Your task to perform on an android device: turn off improve location accuracy Image 0: 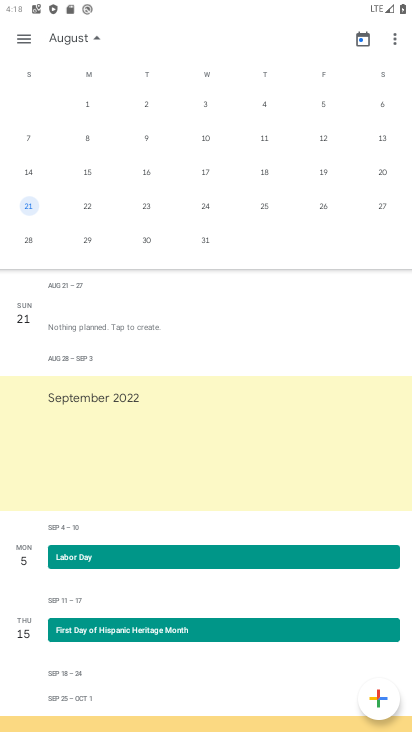
Step 0: press home button
Your task to perform on an android device: turn off improve location accuracy Image 1: 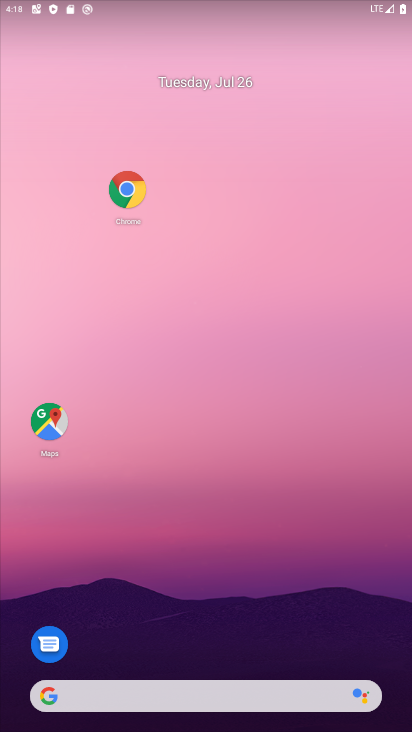
Step 1: drag from (224, 678) to (191, 253)
Your task to perform on an android device: turn off improve location accuracy Image 2: 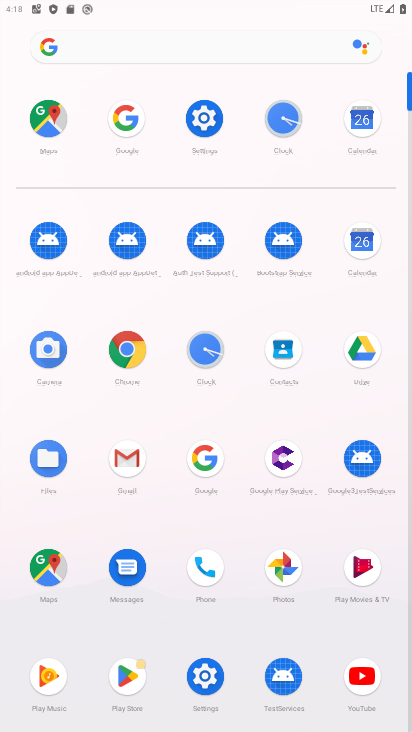
Step 2: click (210, 109)
Your task to perform on an android device: turn off improve location accuracy Image 3: 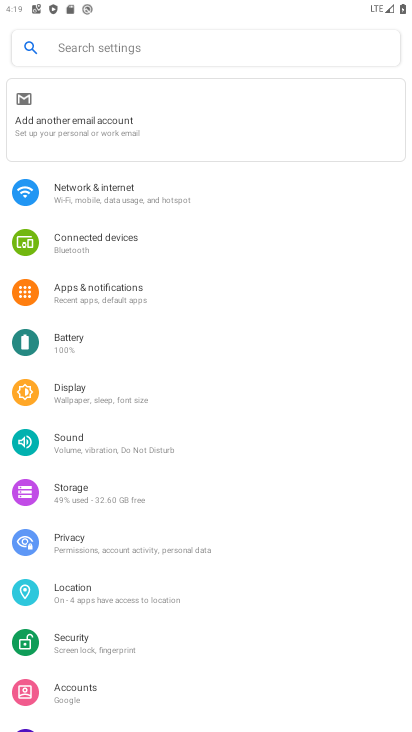
Step 3: click (81, 596)
Your task to perform on an android device: turn off improve location accuracy Image 4: 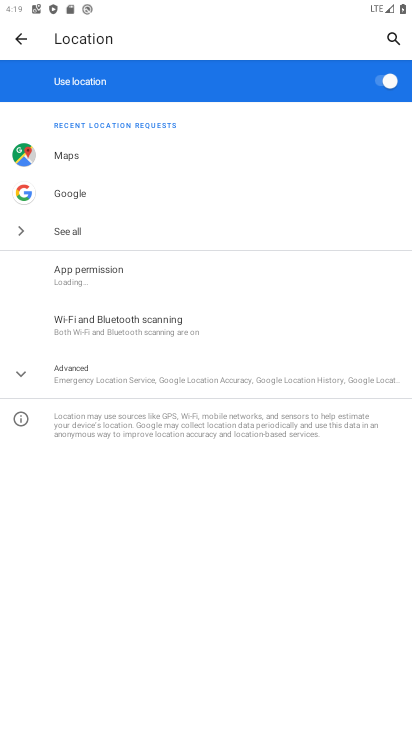
Step 4: click (86, 374)
Your task to perform on an android device: turn off improve location accuracy Image 5: 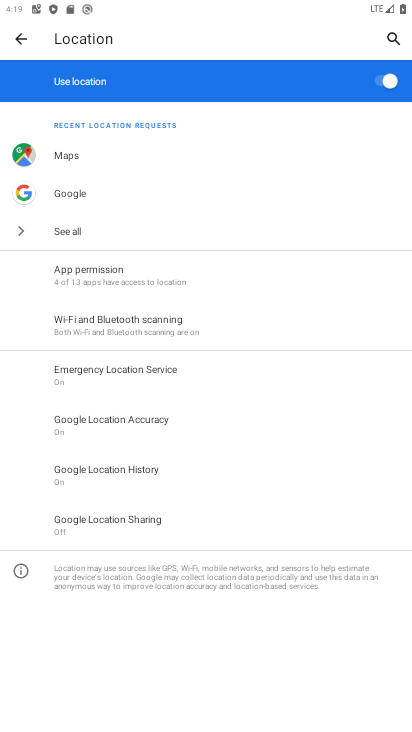
Step 5: click (105, 421)
Your task to perform on an android device: turn off improve location accuracy Image 6: 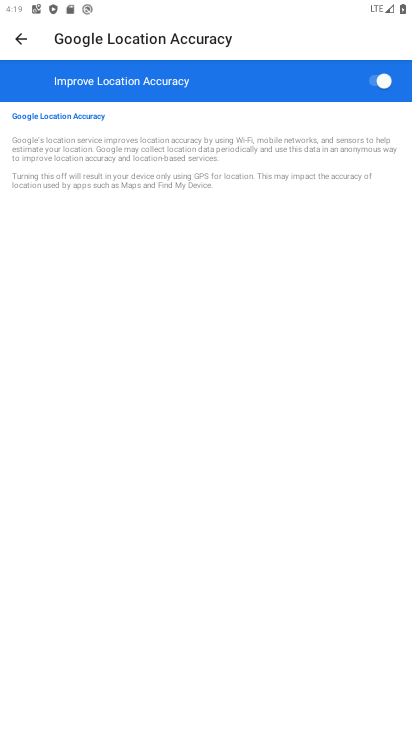
Step 6: click (378, 80)
Your task to perform on an android device: turn off improve location accuracy Image 7: 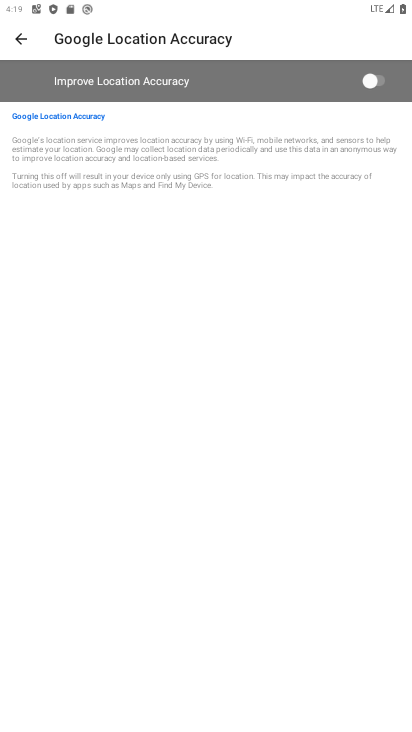
Step 7: task complete